Your task to perform on an android device: install app "Google Find My Device" Image 0: 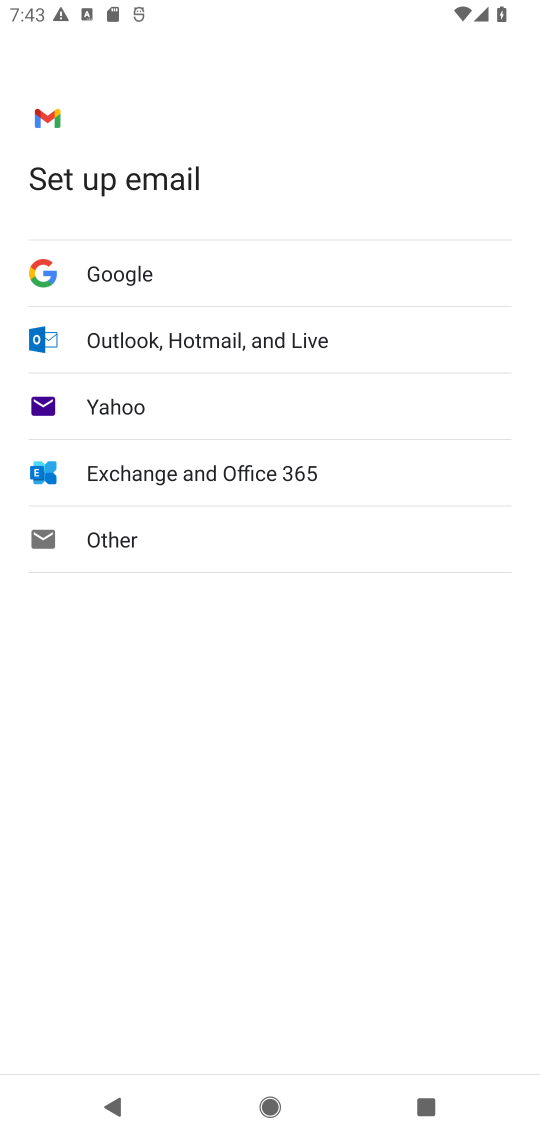
Step 0: press home button
Your task to perform on an android device: install app "Google Find My Device" Image 1: 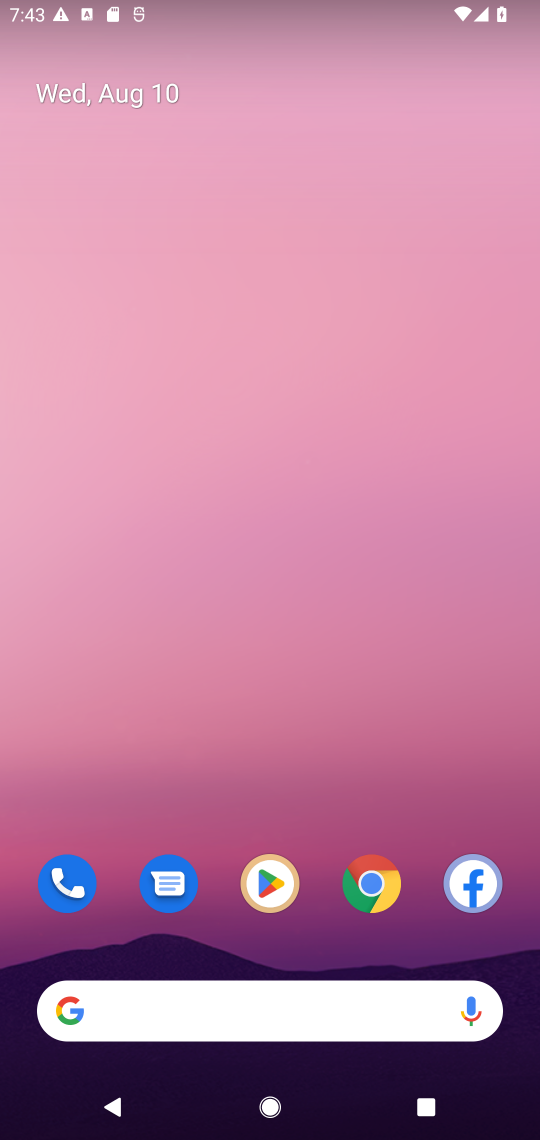
Step 1: click (268, 887)
Your task to perform on an android device: install app "Google Find My Device" Image 2: 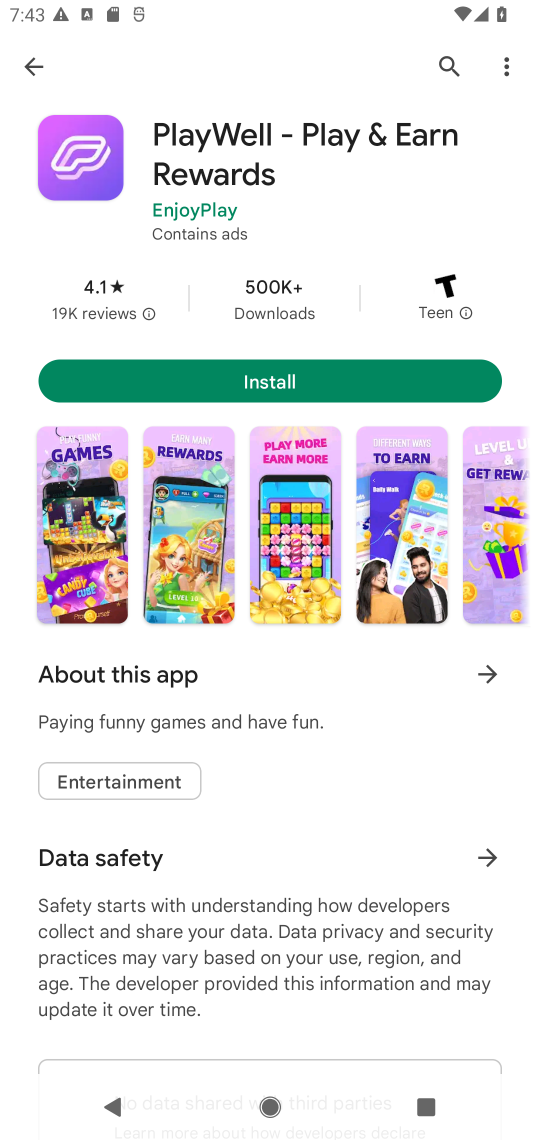
Step 2: click (447, 63)
Your task to perform on an android device: install app "Google Find My Device" Image 3: 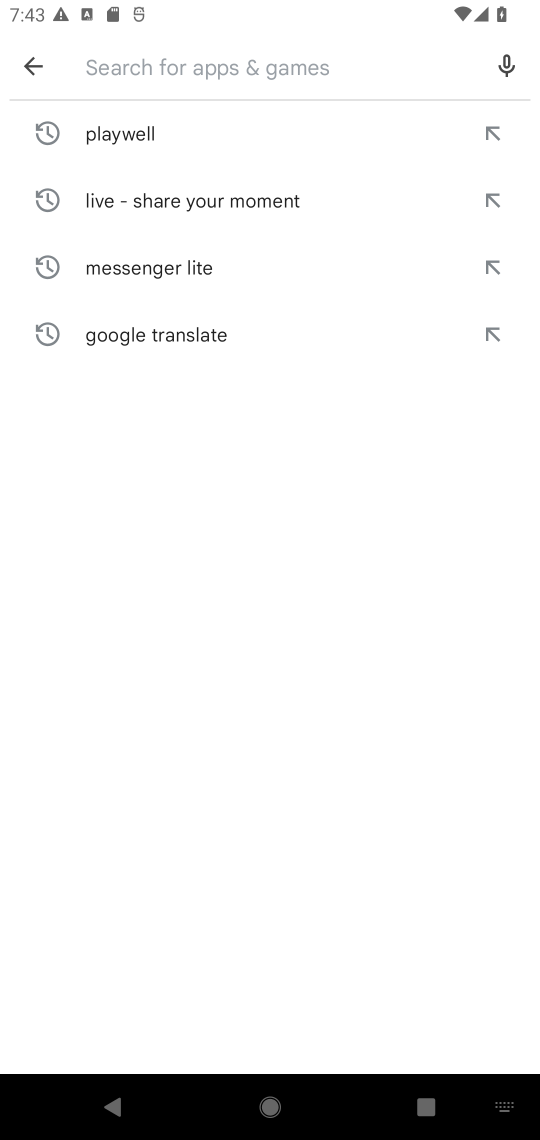
Step 3: type "Google Find My Device"
Your task to perform on an android device: install app "Google Find My Device" Image 4: 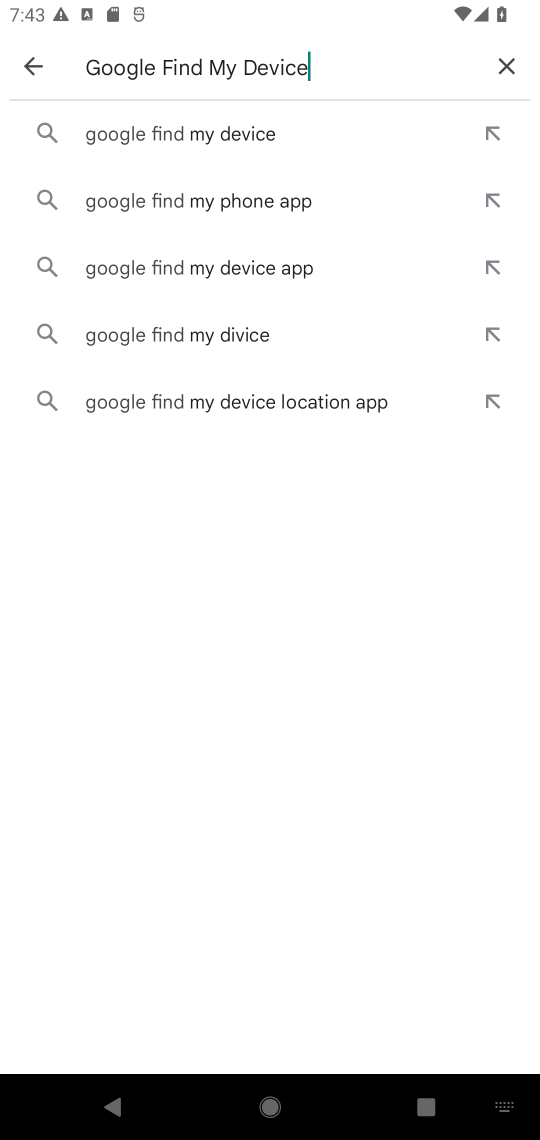
Step 4: type ""
Your task to perform on an android device: install app "Google Find My Device" Image 5: 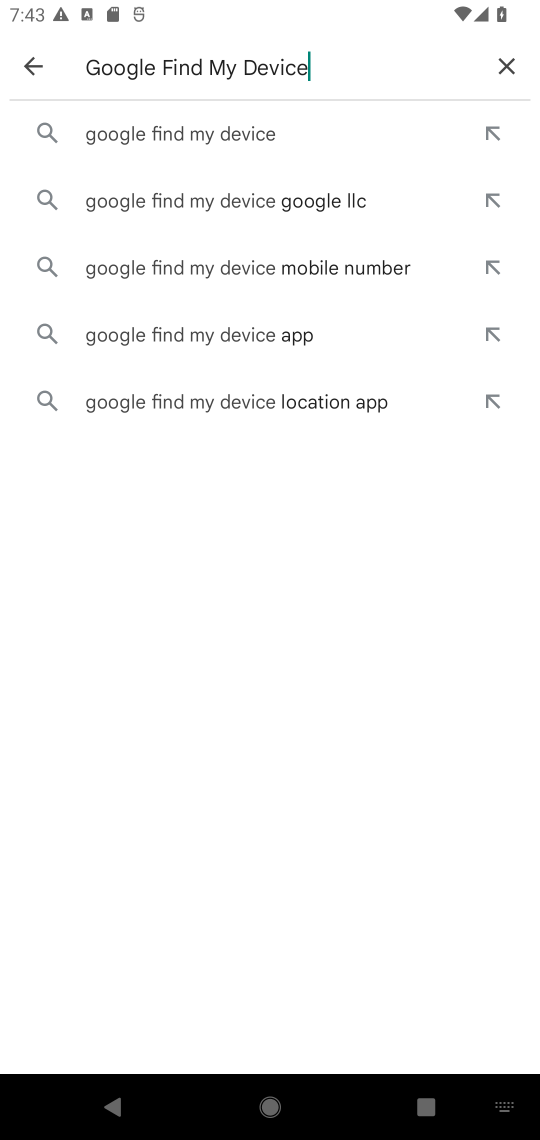
Step 5: click (215, 135)
Your task to perform on an android device: install app "Google Find My Device" Image 6: 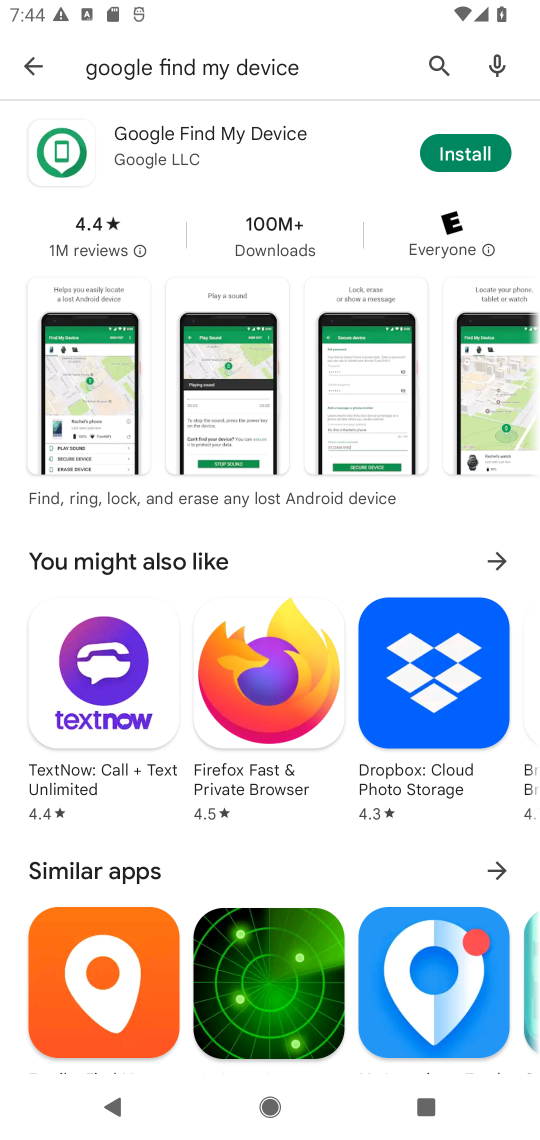
Step 6: click (466, 155)
Your task to perform on an android device: install app "Google Find My Device" Image 7: 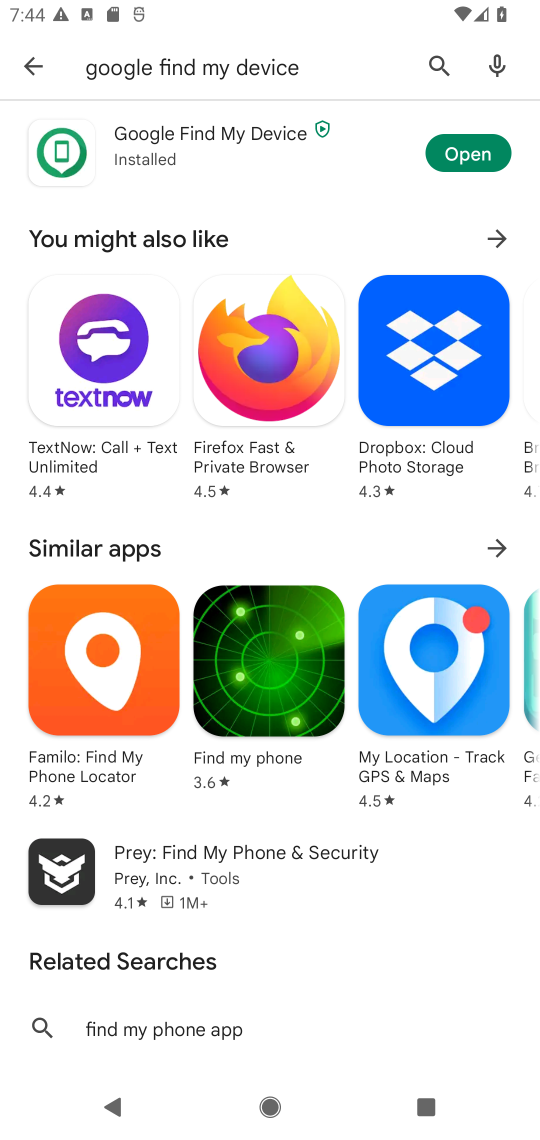
Step 7: task complete